Your task to perform on an android device: see tabs open on other devices in the chrome app Image 0: 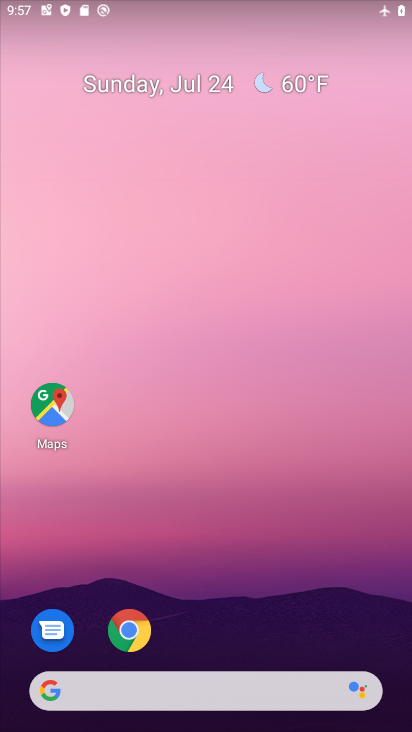
Step 0: drag from (227, 635) to (229, 82)
Your task to perform on an android device: see tabs open on other devices in the chrome app Image 1: 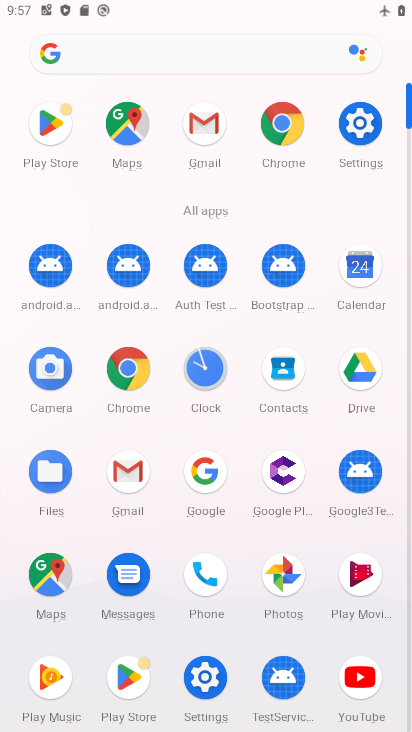
Step 1: click (136, 383)
Your task to perform on an android device: see tabs open on other devices in the chrome app Image 2: 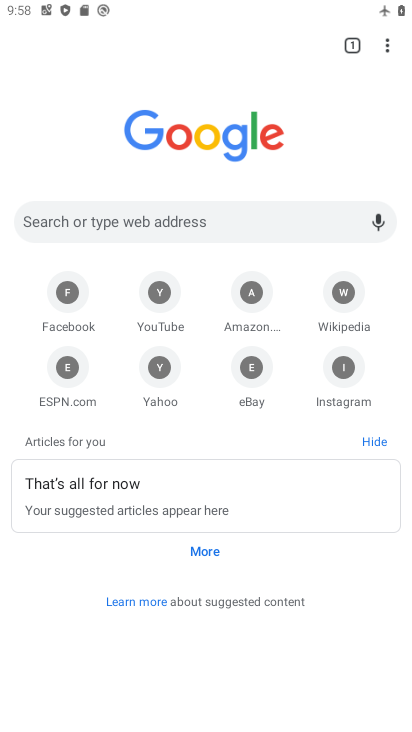
Step 2: click (387, 44)
Your task to perform on an android device: see tabs open on other devices in the chrome app Image 3: 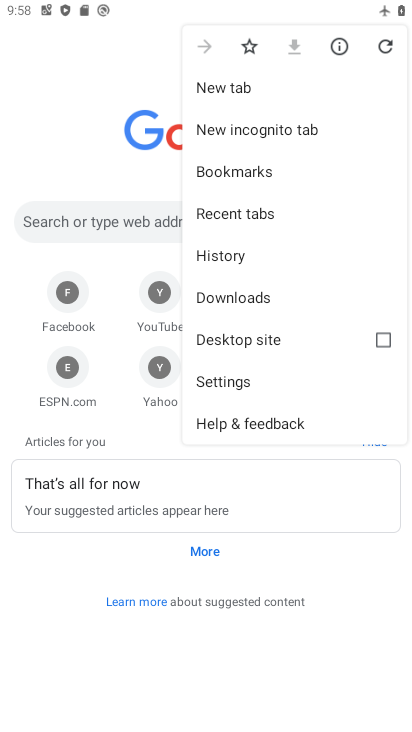
Step 3: click (251, 211)
Your task to perform on an android device: see tabs open on other devices in the chrome app Image 4: 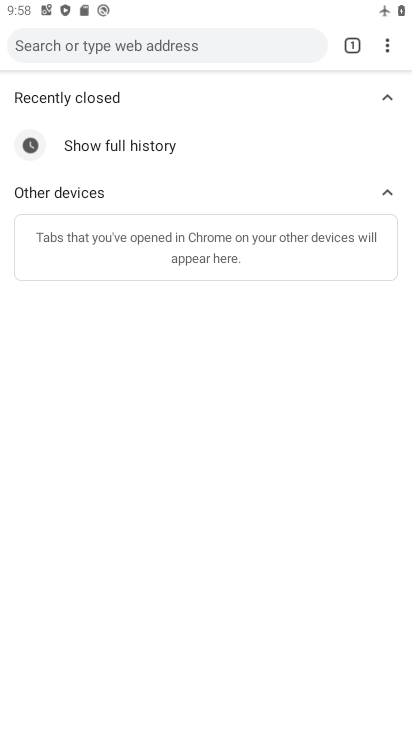
Step 4: task complete